Your task to perform on an android device: Search for pizza restaurants on Maps Image 0: 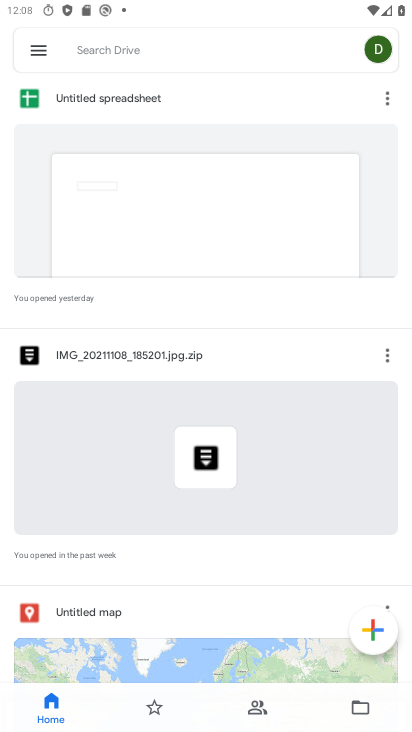
Step 0: press home button
Your task to perform on an android device: Search for pizza restaurants on Maps Image 1: 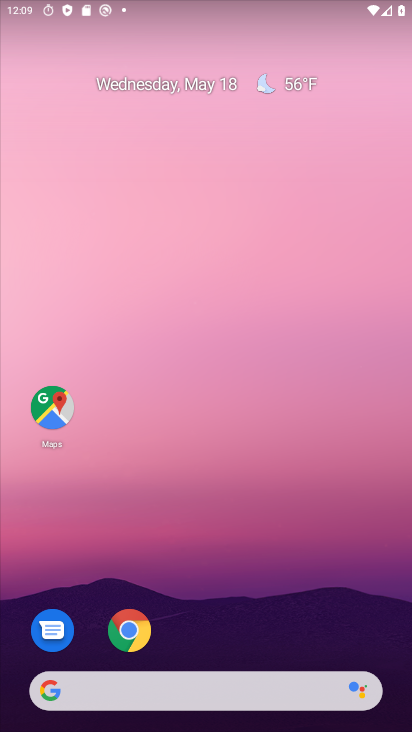
Step 1: click (47, 403)
Your task to perform on an android device: Search for pizza restaurants on Maps Image 2: 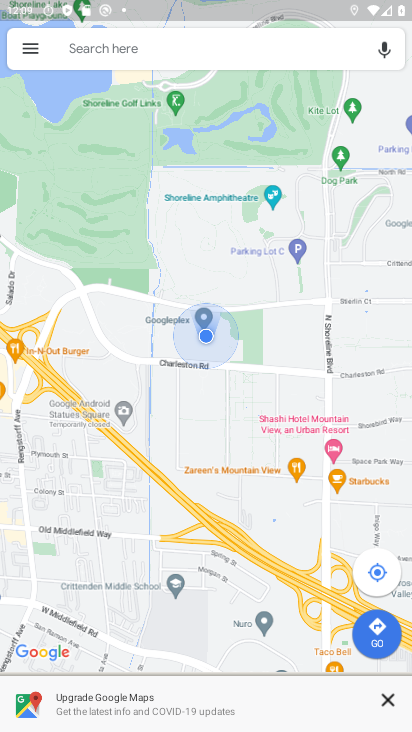
Step 2: click (212, 36)
Your task to perform on an android device: Search for pizza restaurants on Maps Image 3: 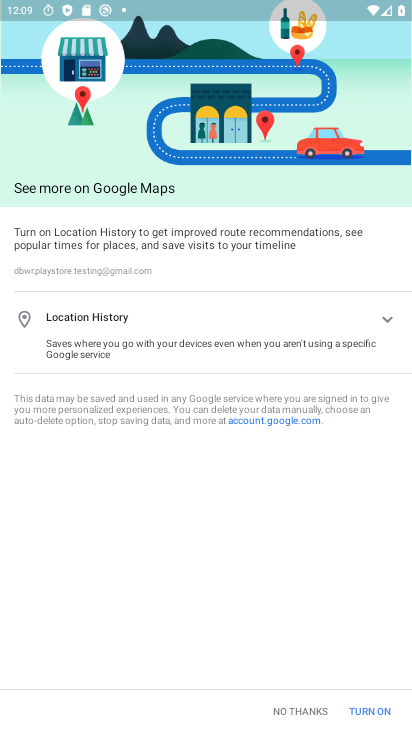
Step 3: press back button
Your task to perform on an android device: Search for pizza restaurants on Maps Image 4: 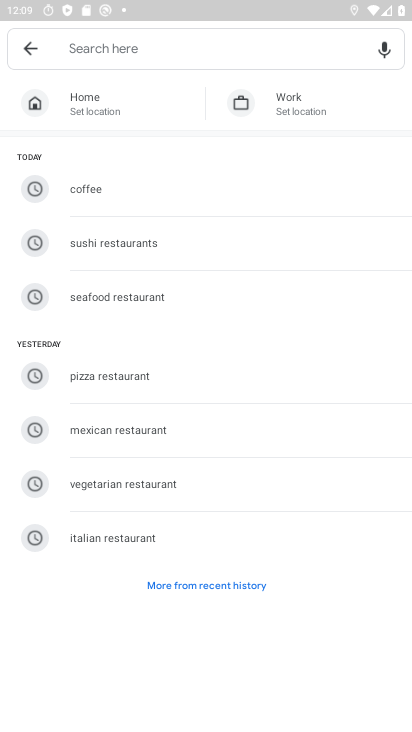
Step 4: click (93, 367)
Your task to perform on an android device: Search for pizza restaurants on Maps Image 5: 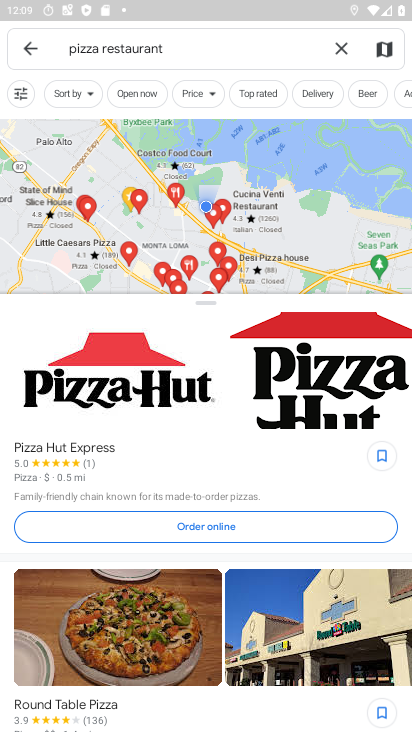
Step 5: task complete